Your task to perform on an android device: turn on location history Image 0: 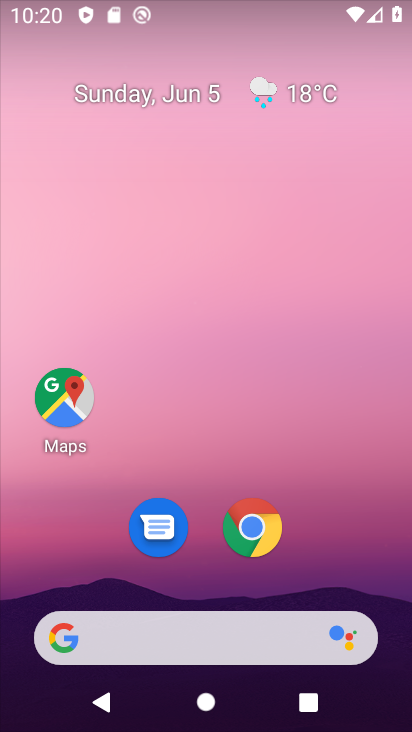
Step 0: click (359, 104)
Your task to perform on an android device: turn on location history Image 1: 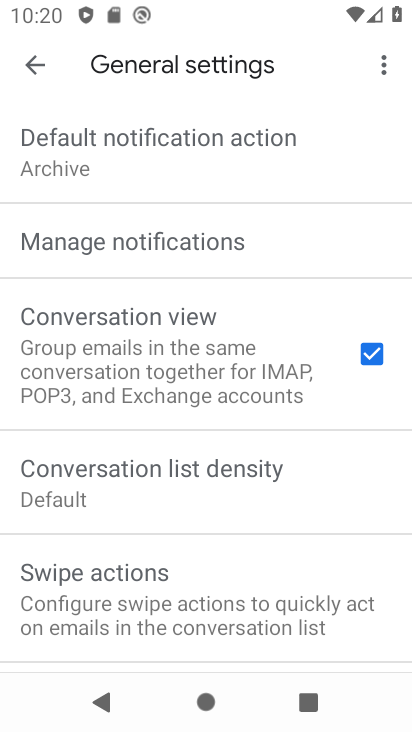
Step 1: press home button
Your task to perform on an android device: turn on location history Image 2: 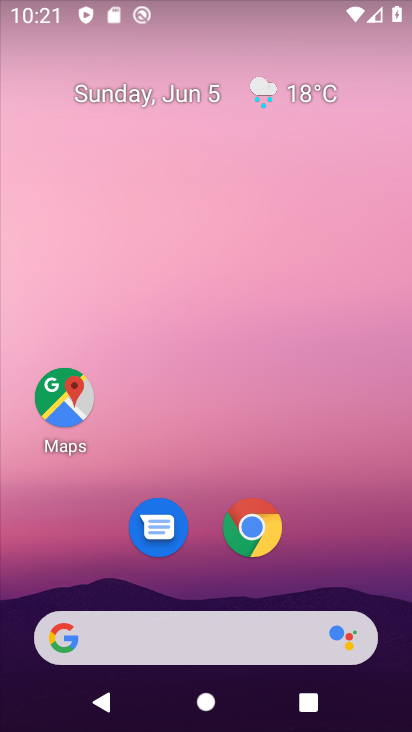
Step 2: click (87, 382)
Your task to perform on an android device: turn on location history Image 3: 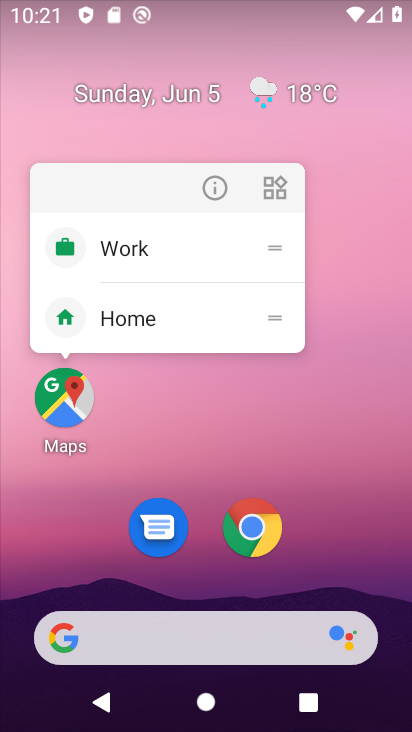
Step 3: click (79, 407)
Your task to perform on an android device: turn on location history Image 4: 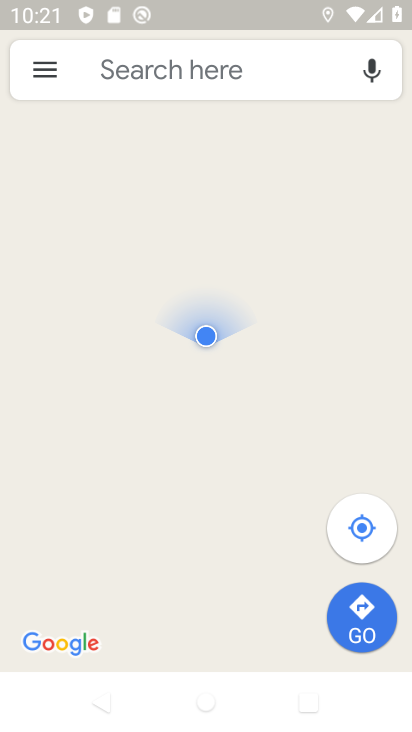
Step 4: click (53, 59)
Your task to perform on an android device: turn on location history Image 5: 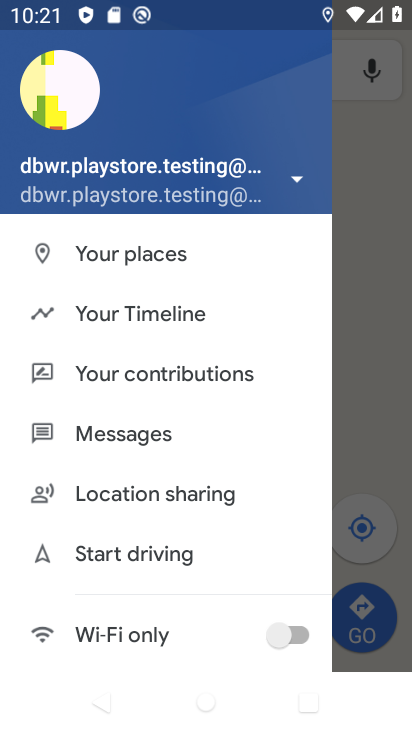
Step 5: click (165, 313)
Your task to perform on an android device: turn on location history Image 6: 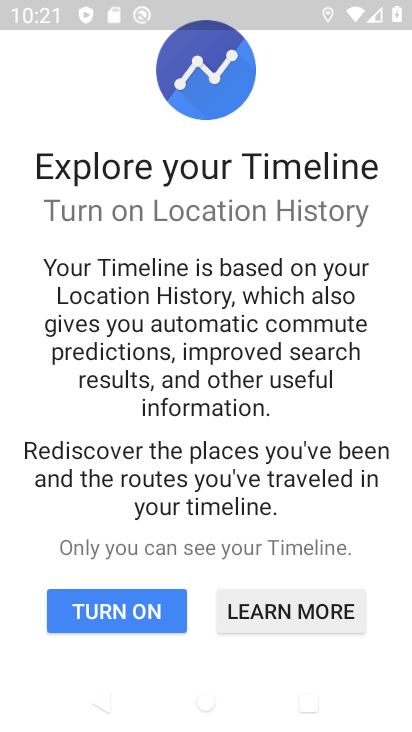
Step 6: click (164, 599)
Your task to perform on an android device: turn on location history Image 7: 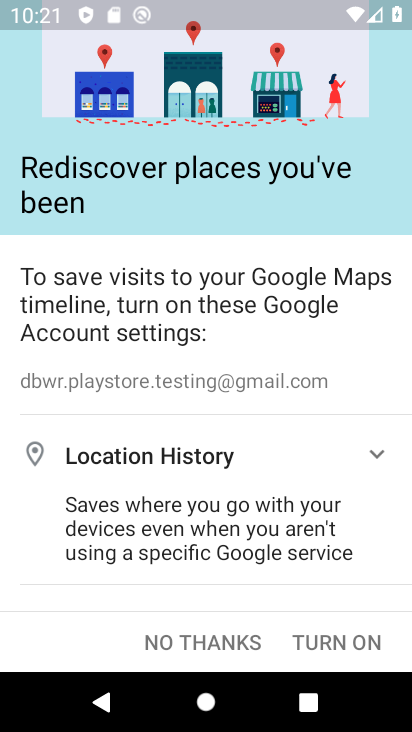
Step 7: click (321, 637)
Your task to perform on an android device: turn on location history Image 8: 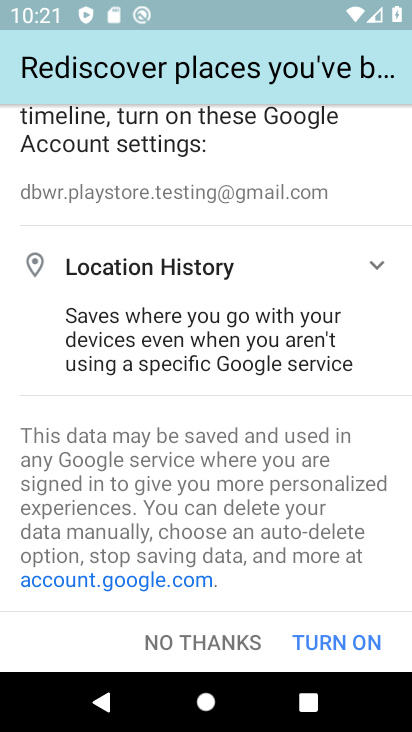
Step 8: click (321, 637)
Your task to perform on an android device: turn on location history Image 9: 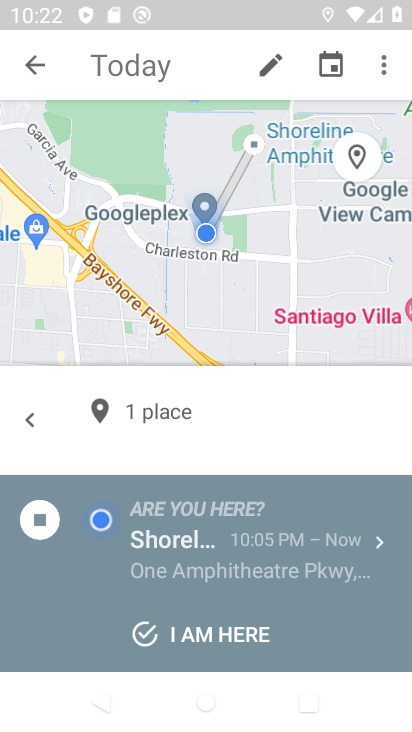
Step 9: task complete